Your task to perform on an android device: install app "Grab" Image 0: 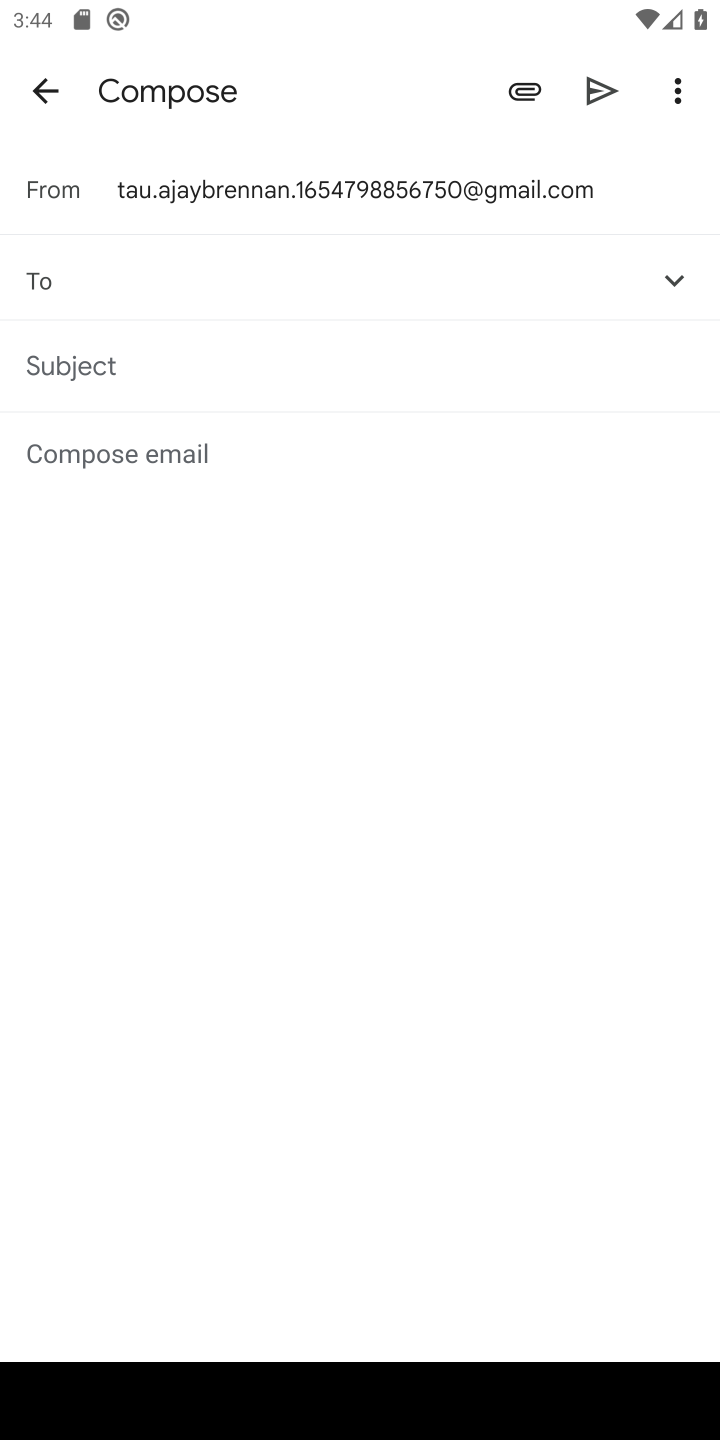
Step 0: press home button
Your task to perform on an android device: install app "Grab" Image 1: 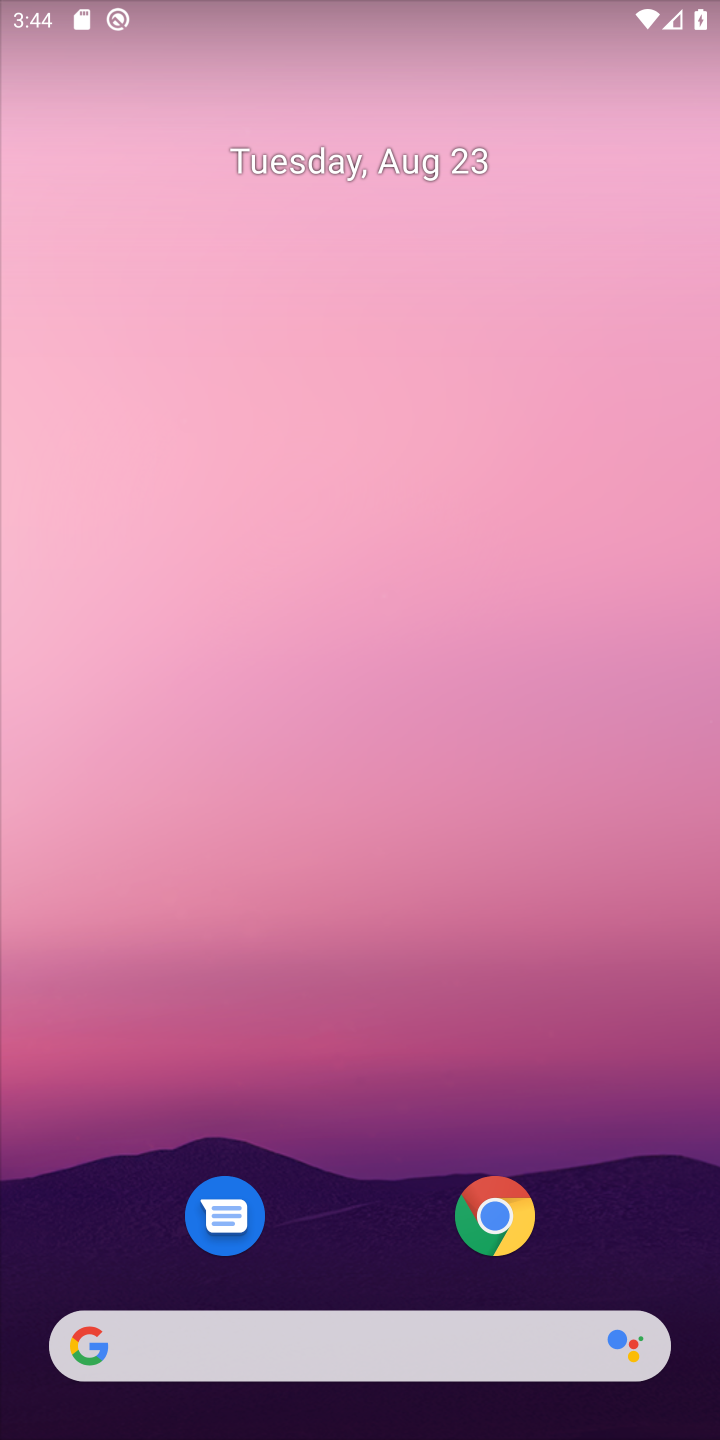
Step 1: drag from (378, 1183) to (422, 0)
Your task to perform on an android device: install app "Grab" Image 2: 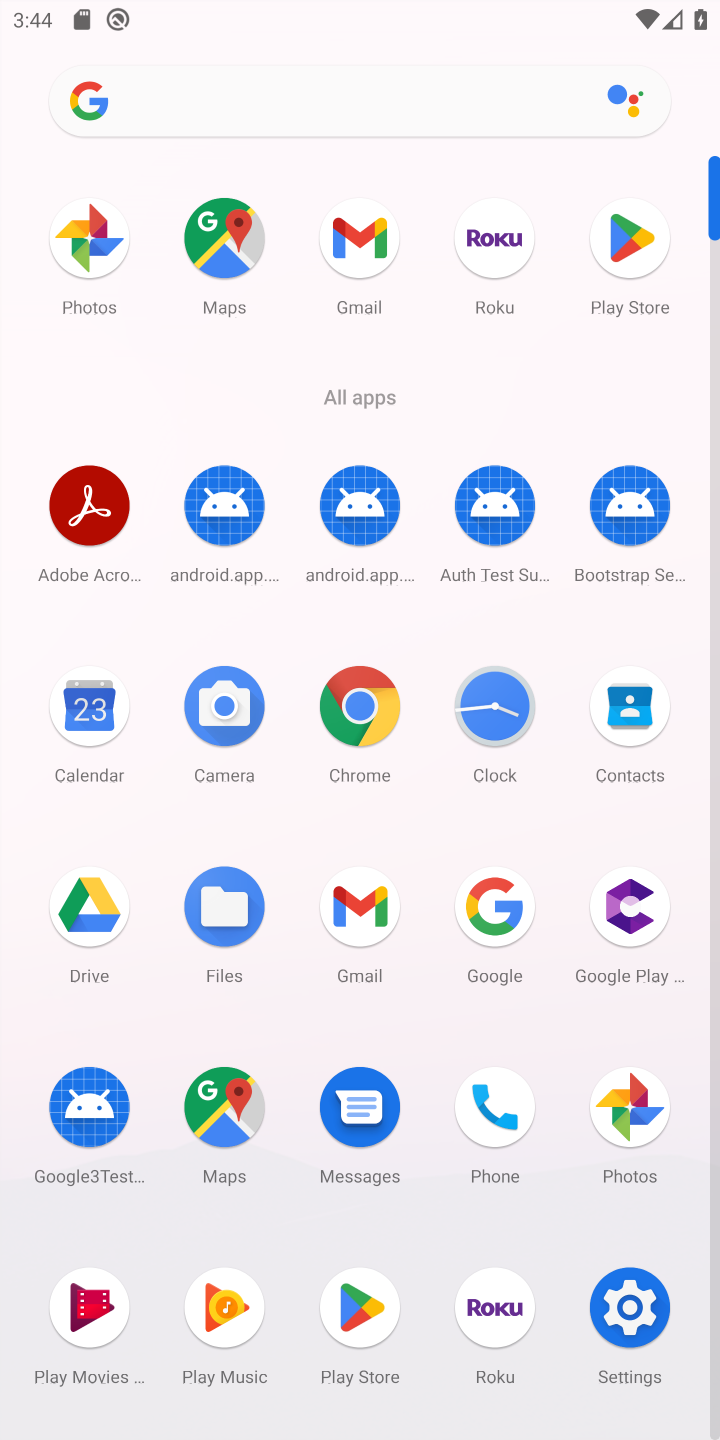
Step 2: click (623, 259)
Your task to perform on an android device: install app "Grab" Image 3: 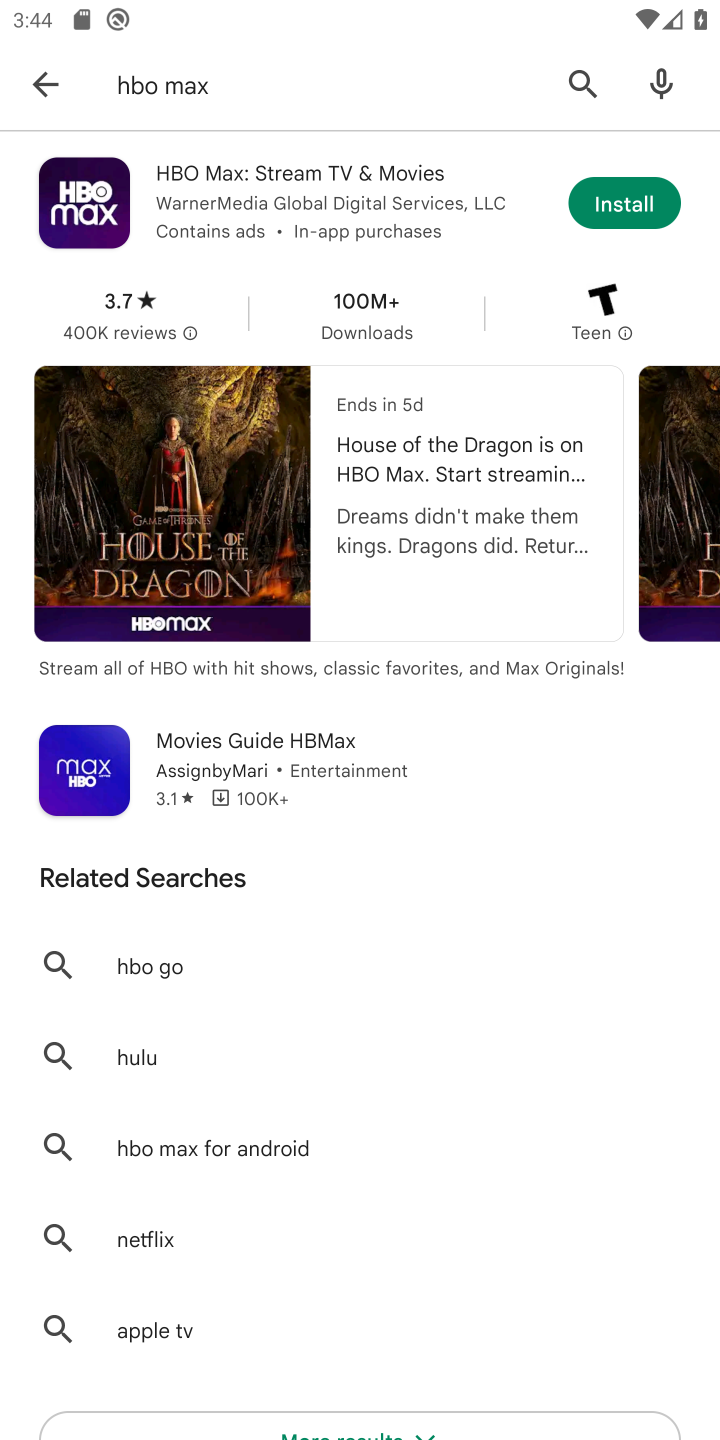
Step 3: click (234, 85)
Your task to perform on an android device: install app "Grab" Image 4: 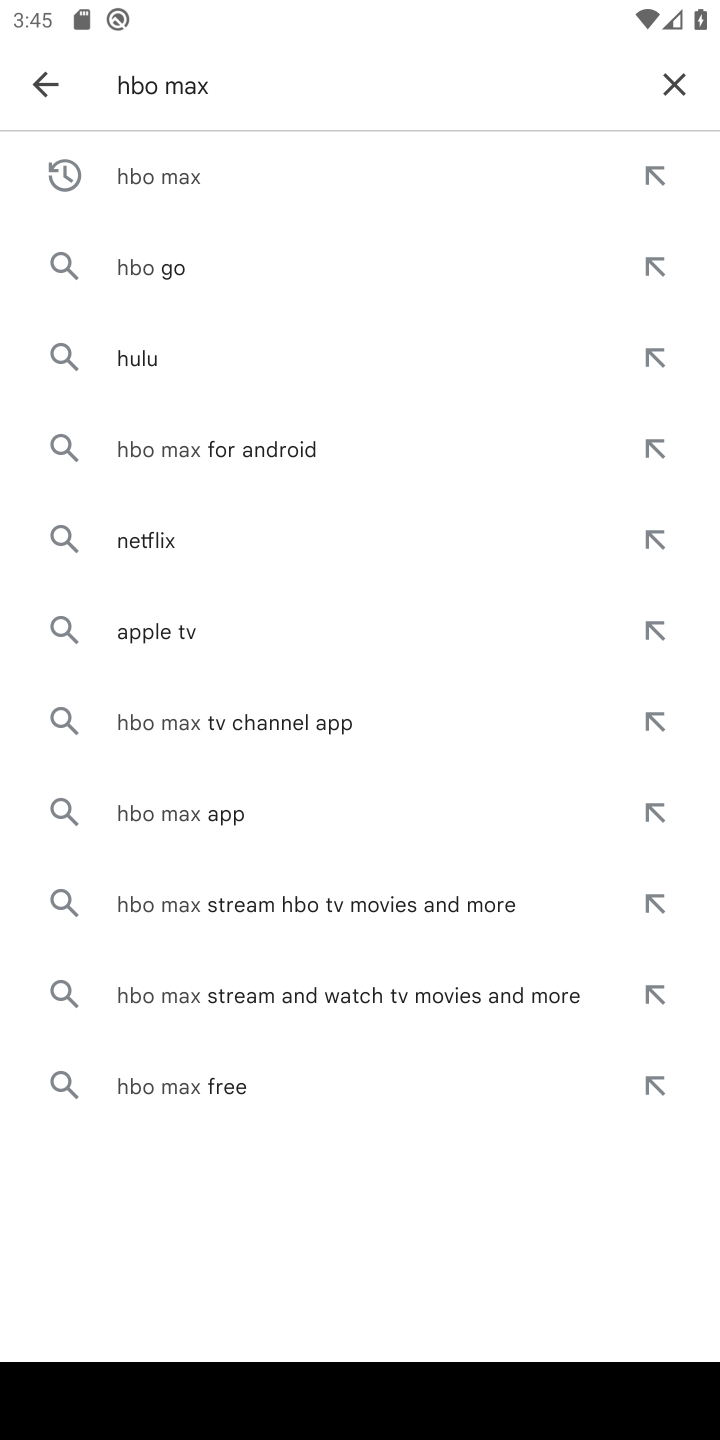
Step 4: click (297, 90)
Your task to perform on an android device: install app "Grab" Image 5: 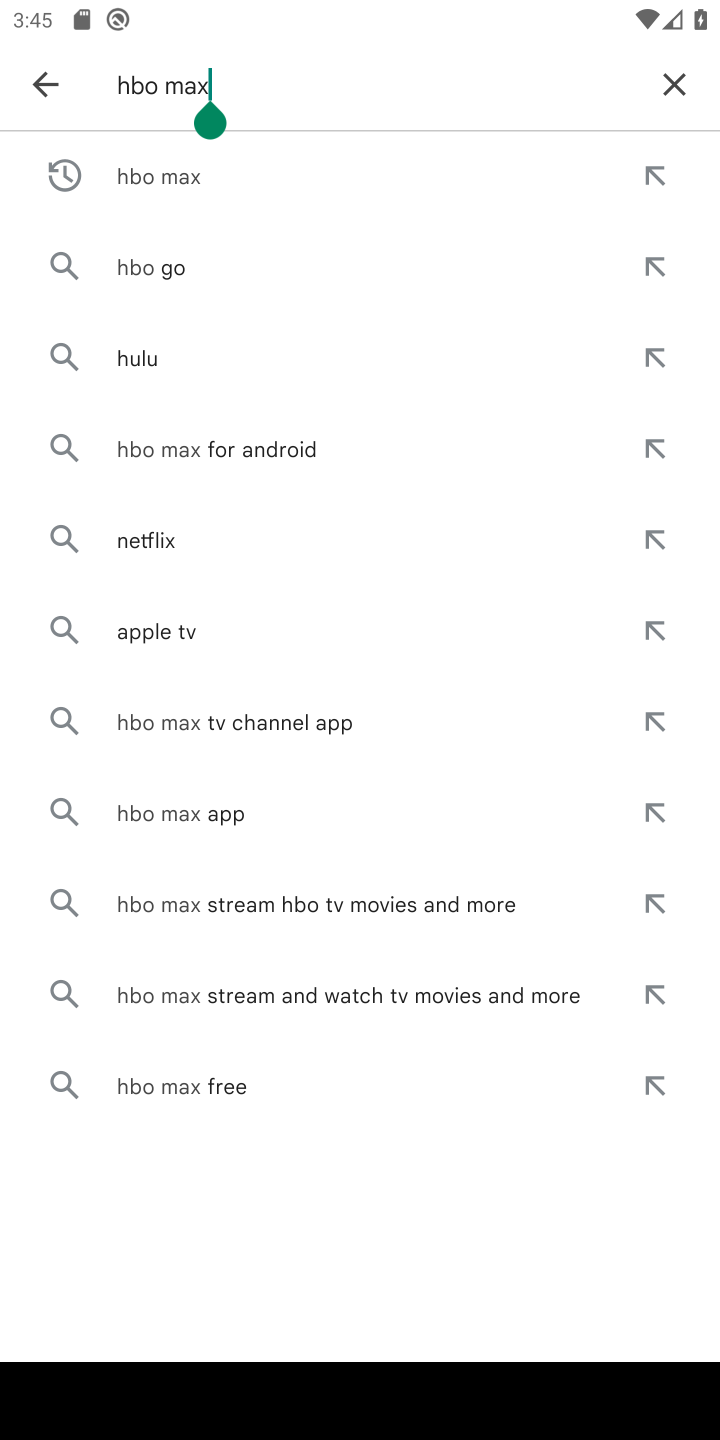
Step 5: click (670, 70)
Your task to perform on an android device: install app "Grab" Image 6: 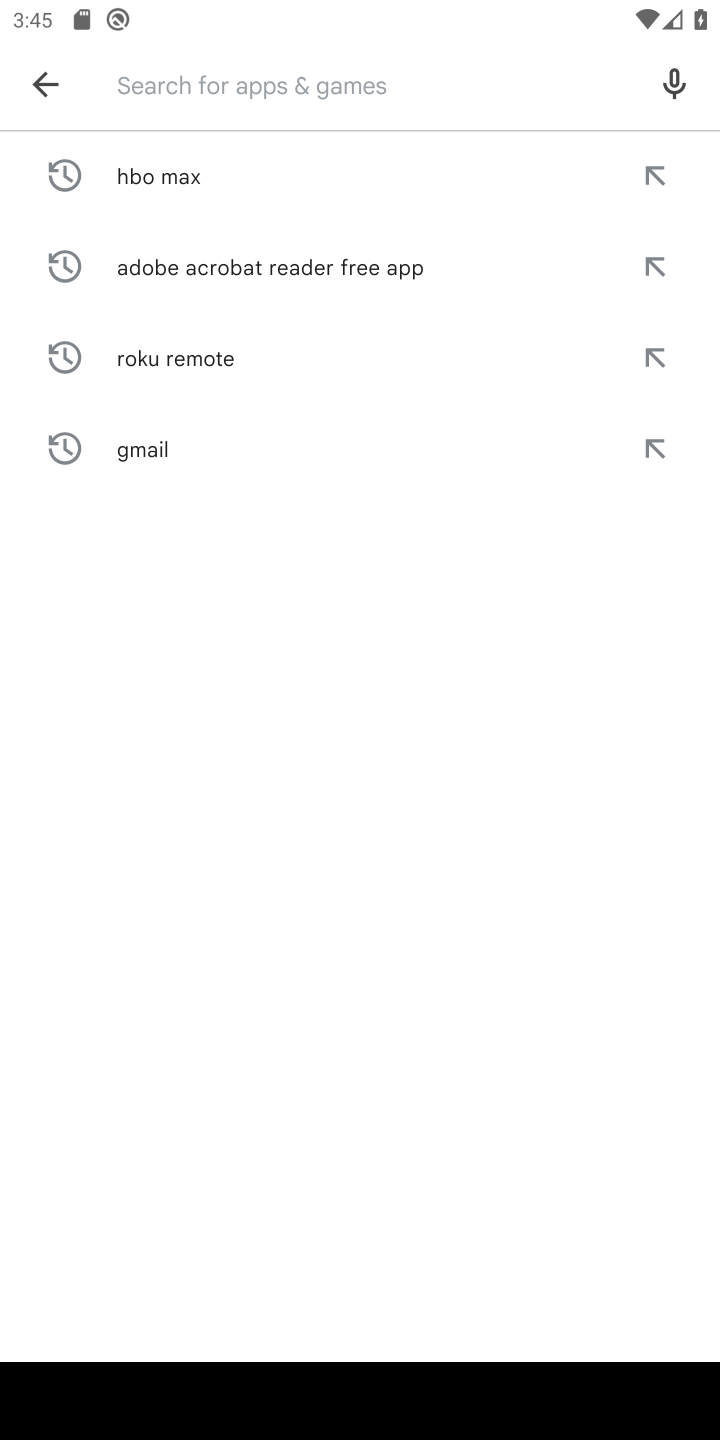
Step 6: type "Grab"
Your task to perform on an android device: install app "Grab" Image 7: 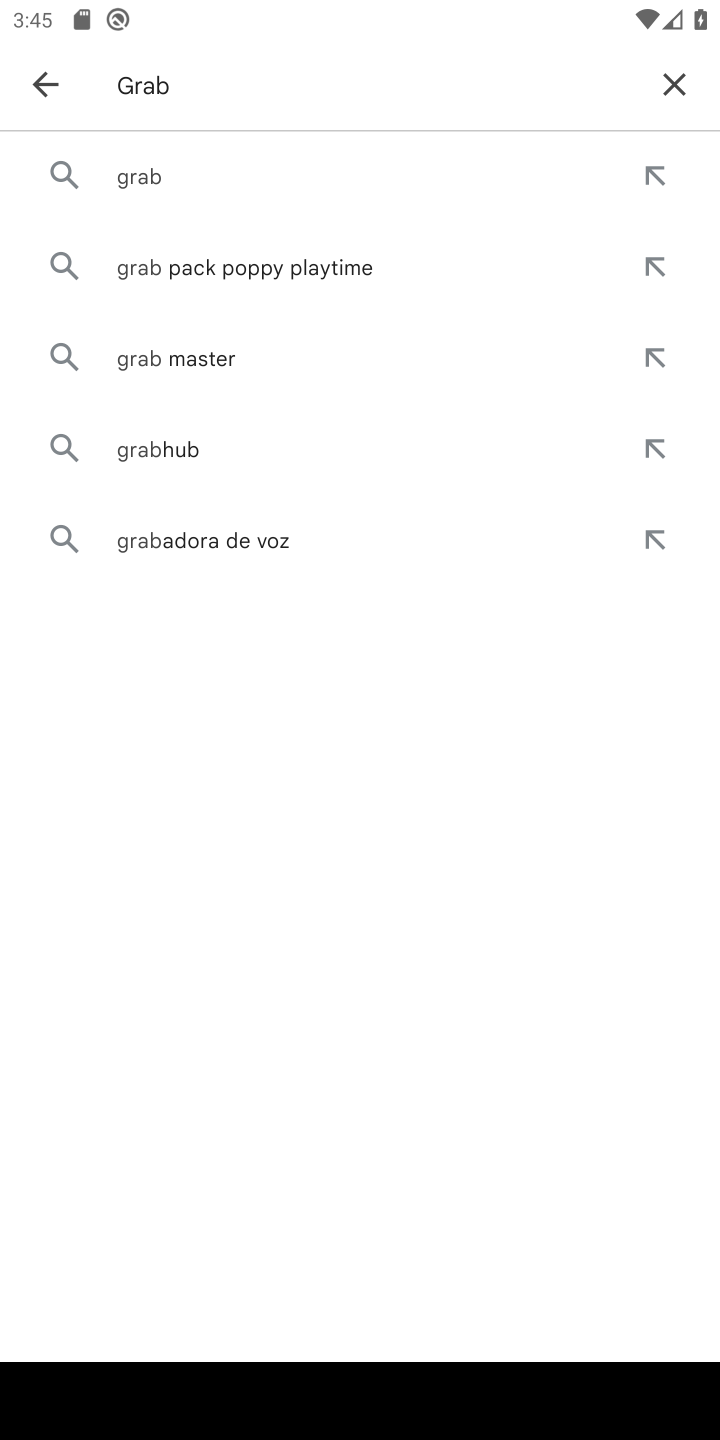
Step 7: click (165, 187)
Your task to perform on an android device: install app "Grab" Image 8: 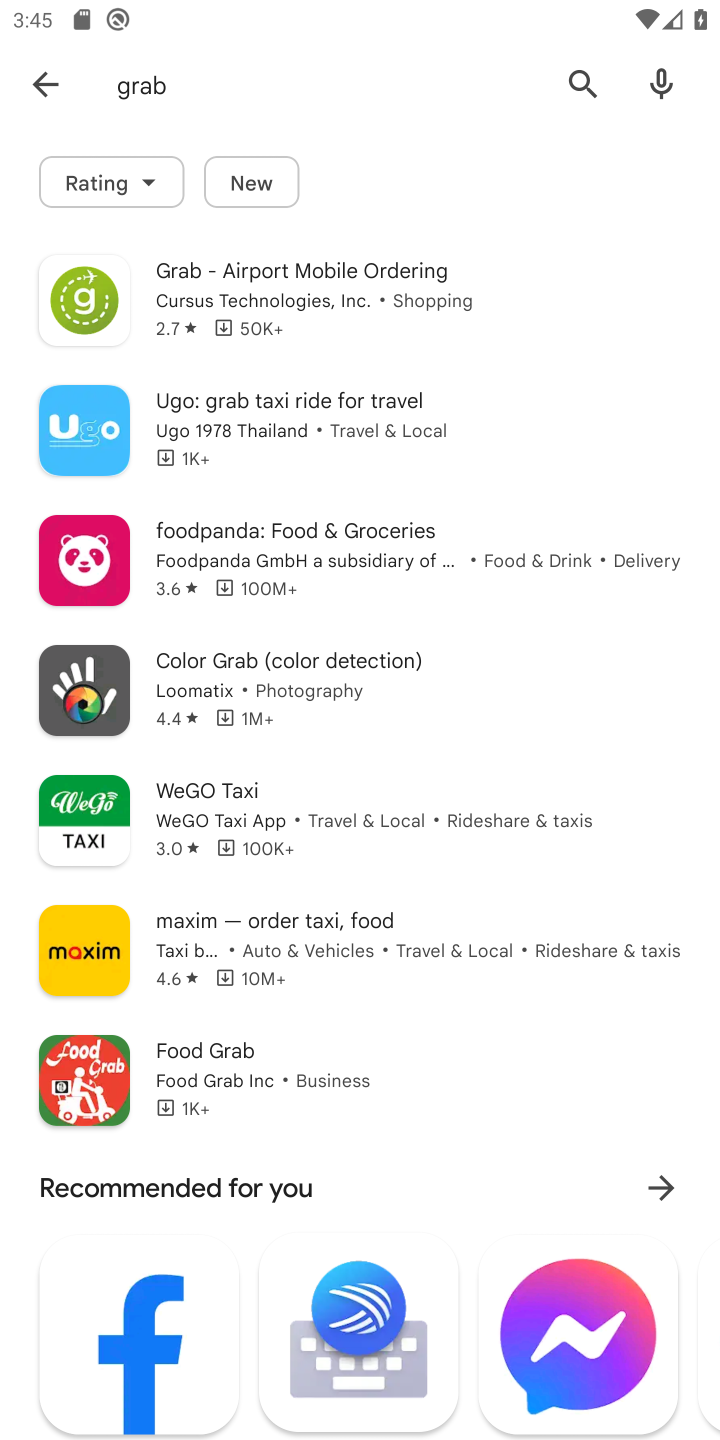
Step 8: click (179, 278)
Your task to perform on an android device: install app "Grab" Image 9: 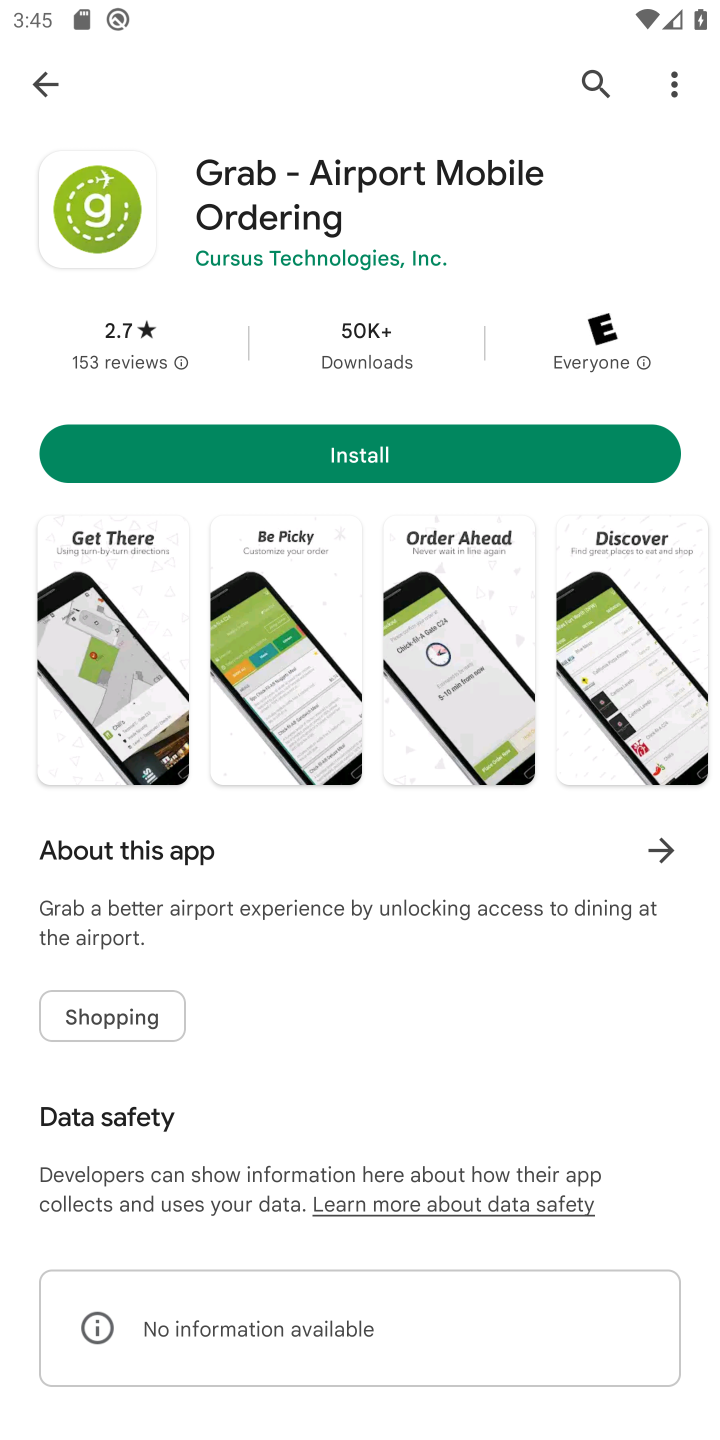
Step 9: click (410, 453)
Your task to perform on an android device: install app "Grab" Image 10: 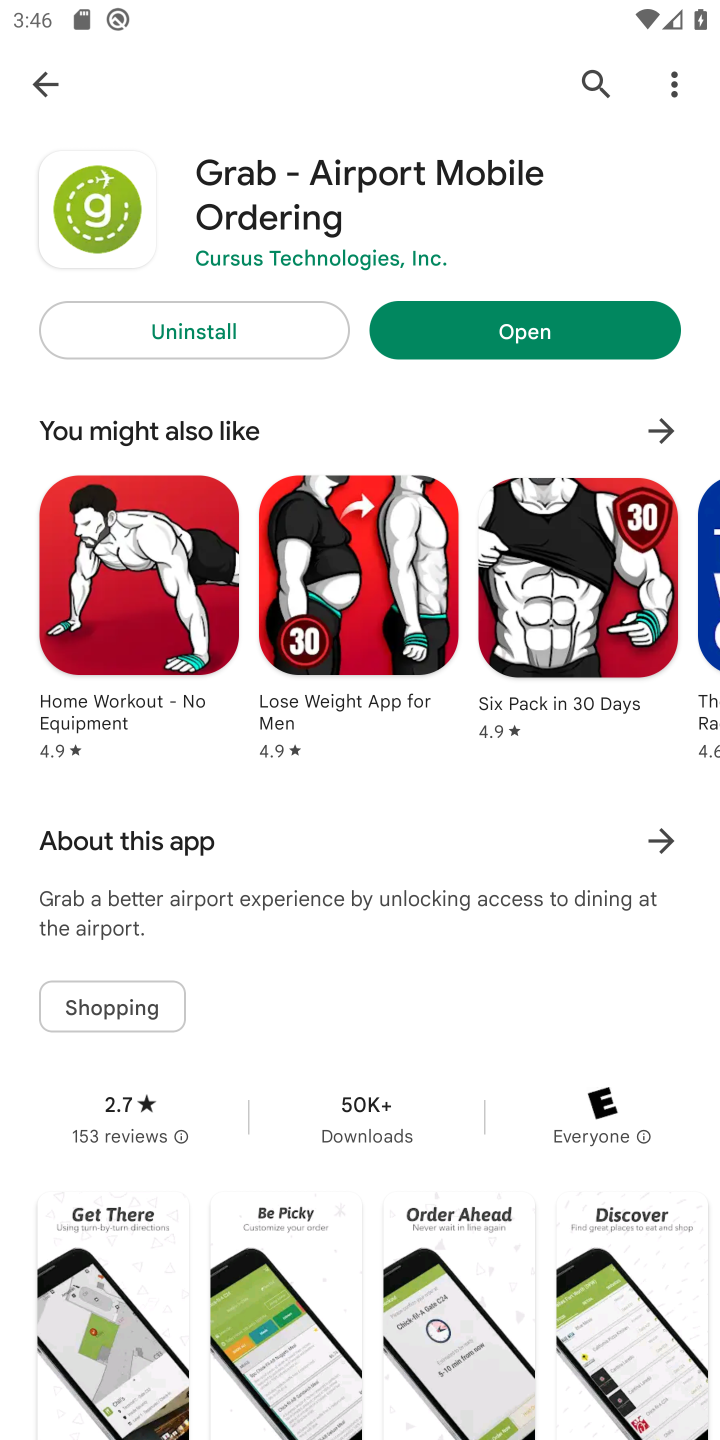
Step 10: task complete